Your task to perform on an android device: Show me recent news Image 0: 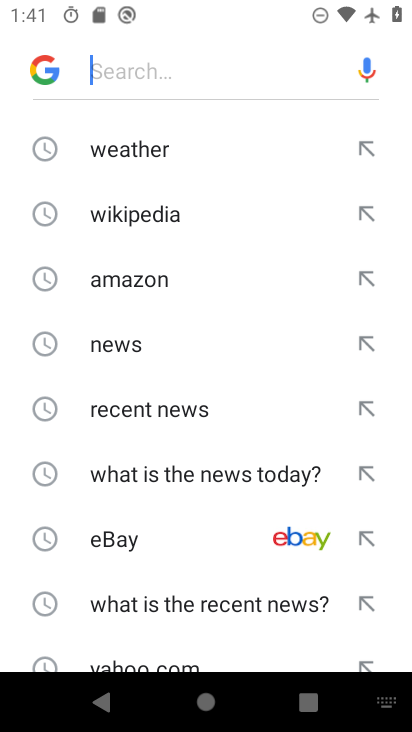
Step 0: press home button
Your task to perform on an android device: Show me recent news Image 1: 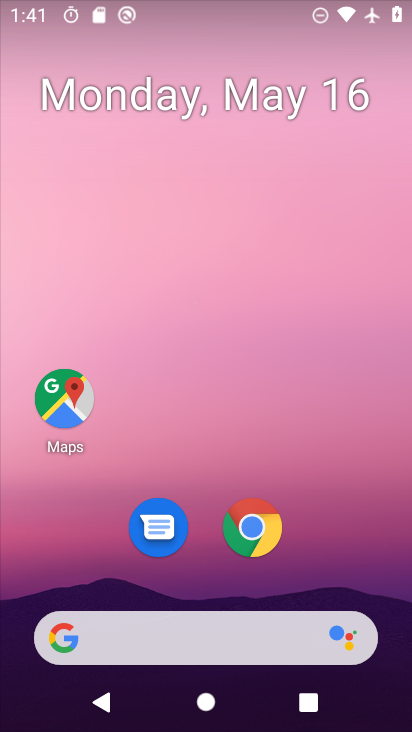
Step 1: click (68, 642)
Your task to perform on an android device: Show me recent news Image 2: 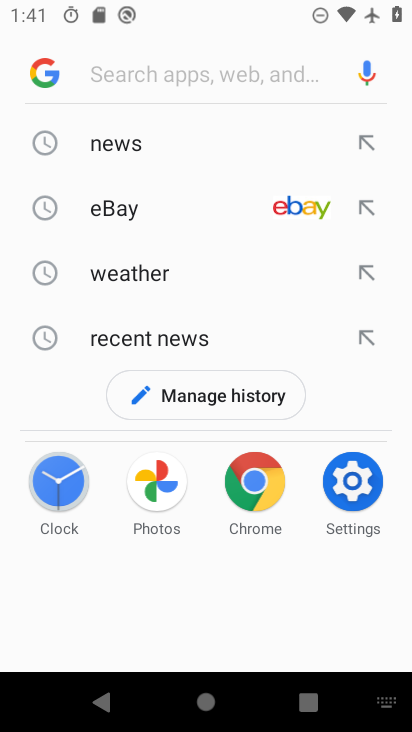
Step 2: click (121, 344)
Your task to perform on an android device: Show me recent news Image 3: 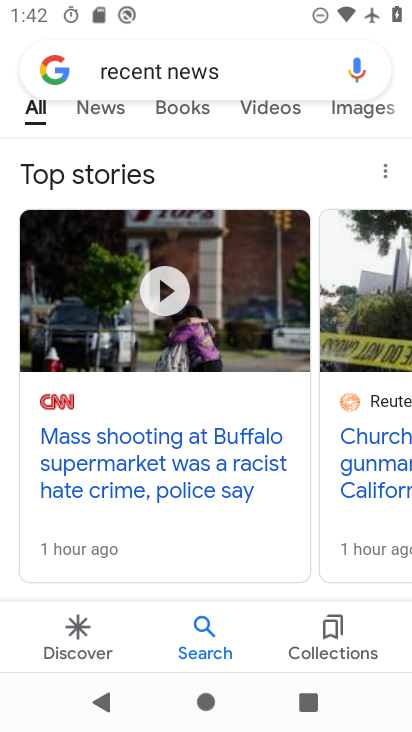
Step 3: click (104, 112)
Your task to perform on an android device: Show me recent news Image 4: 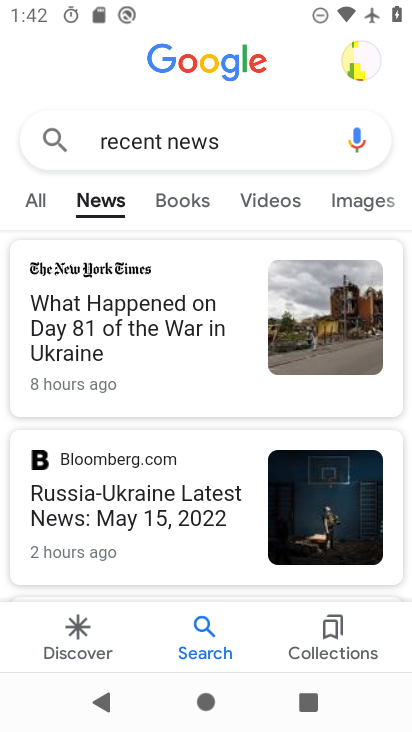
Step 4: task complete